Your task to perform on an android device: Go to internet settings Image 0: 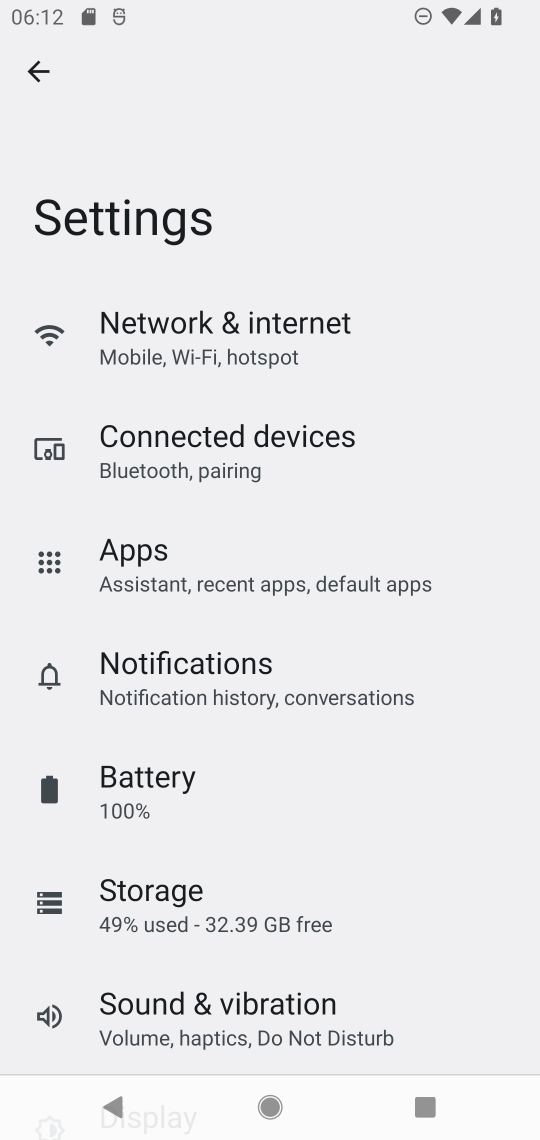
Step 0: press home button
Your task to perform on an android device: Go to internet settings Image 1: 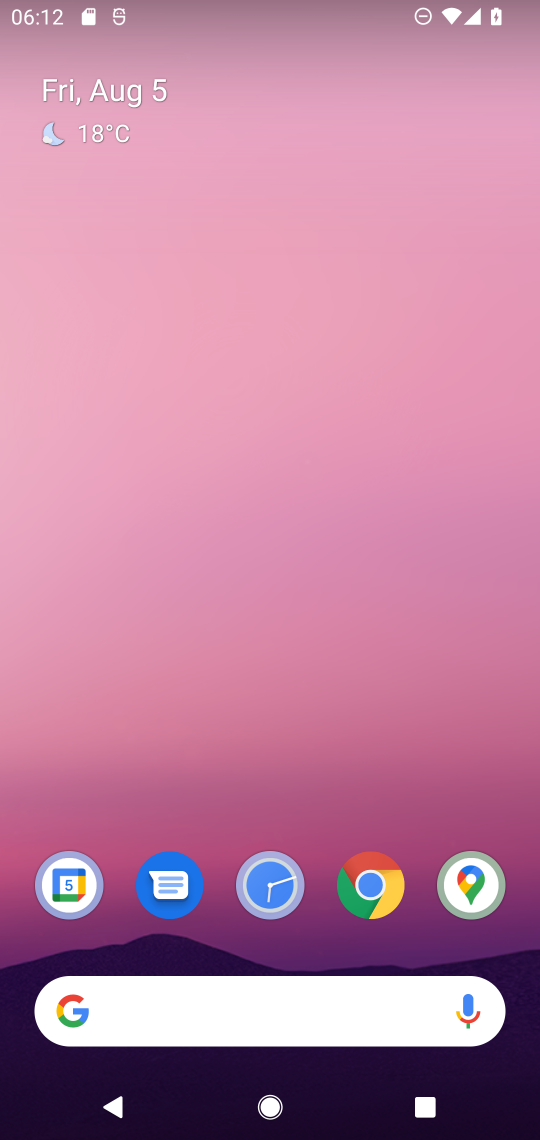
Step 1: drag from (308, 949) to (279, 269)
Your task to perform on an android device: Go to internet settings Image 2: 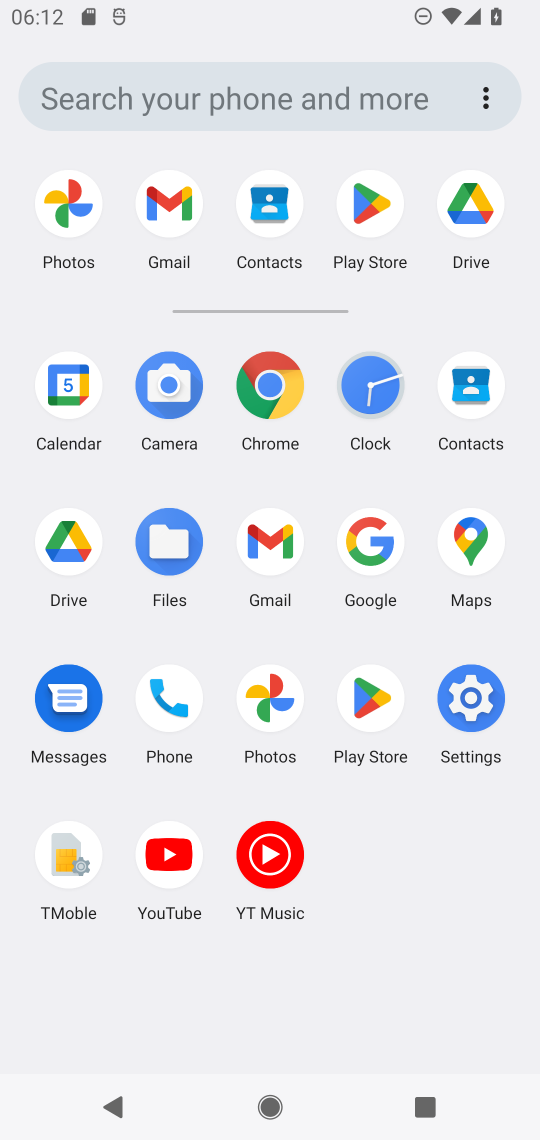
Step 2: click (465, 701)
Your task to perform on an android device: Go to internet settings Image 3: 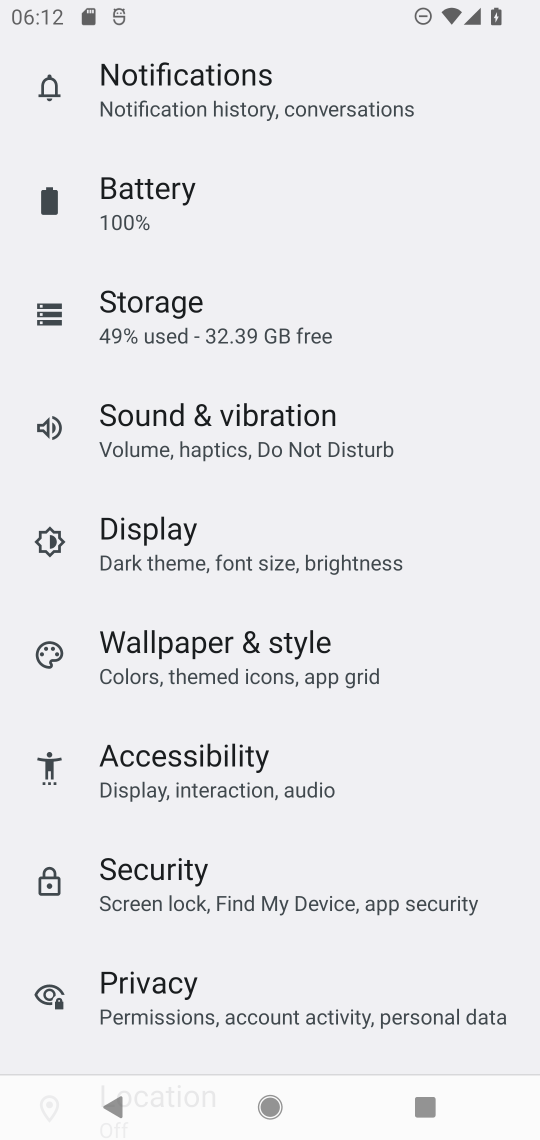
Step 3: drag from (182, 233) to (226, 797)
Your task to perform on an android device: Go to internet settings Image 4: 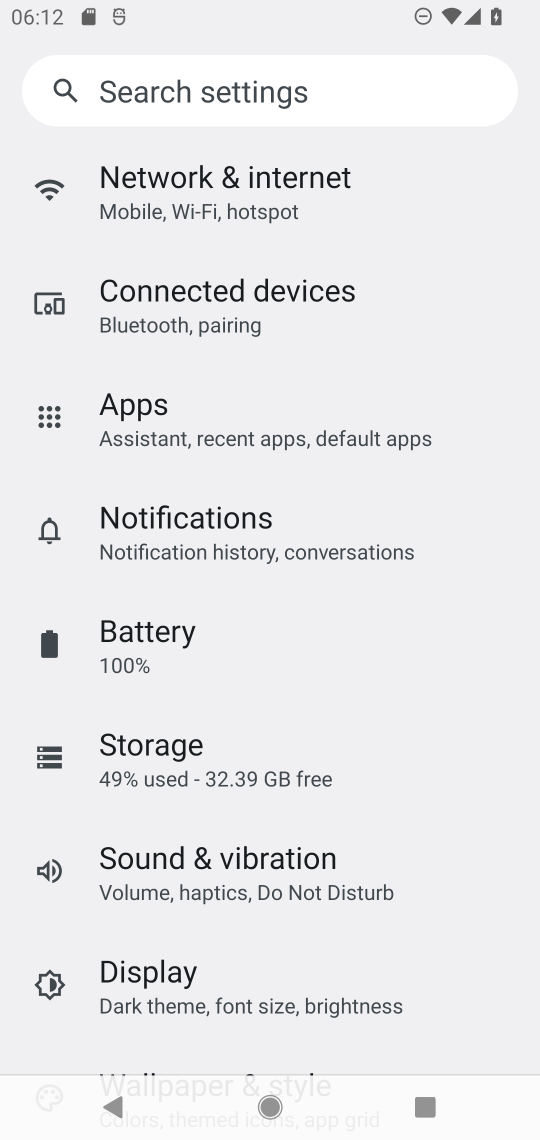
Step 4: drag from (234, 387) to (263, 621)
Your task to perform on an android device: Go to internet settings Image 5: 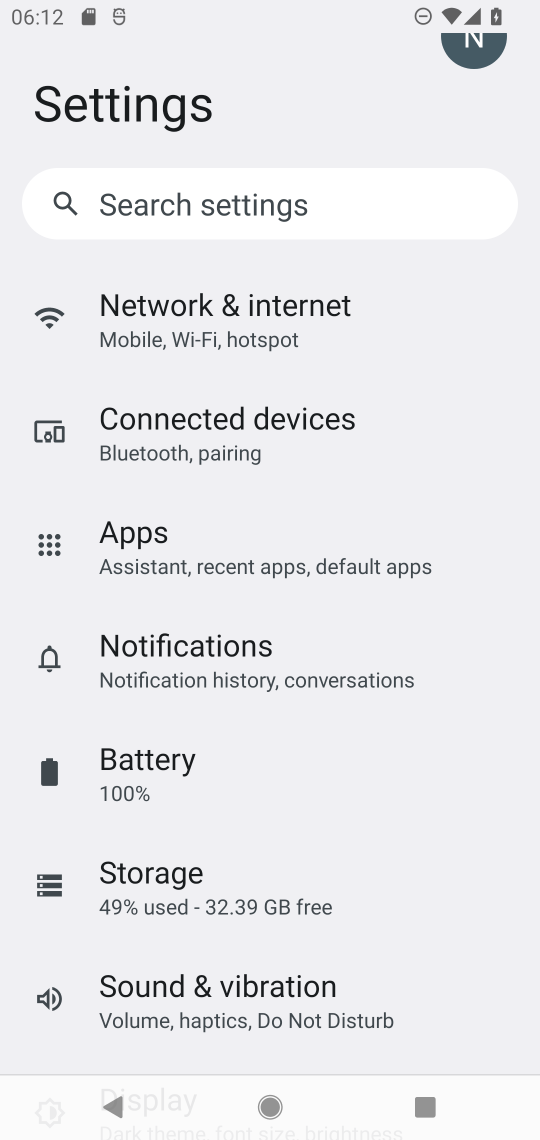
Step 5: click (172, 312)
Your task to perform on an android device: Go to internet settings Image 6: 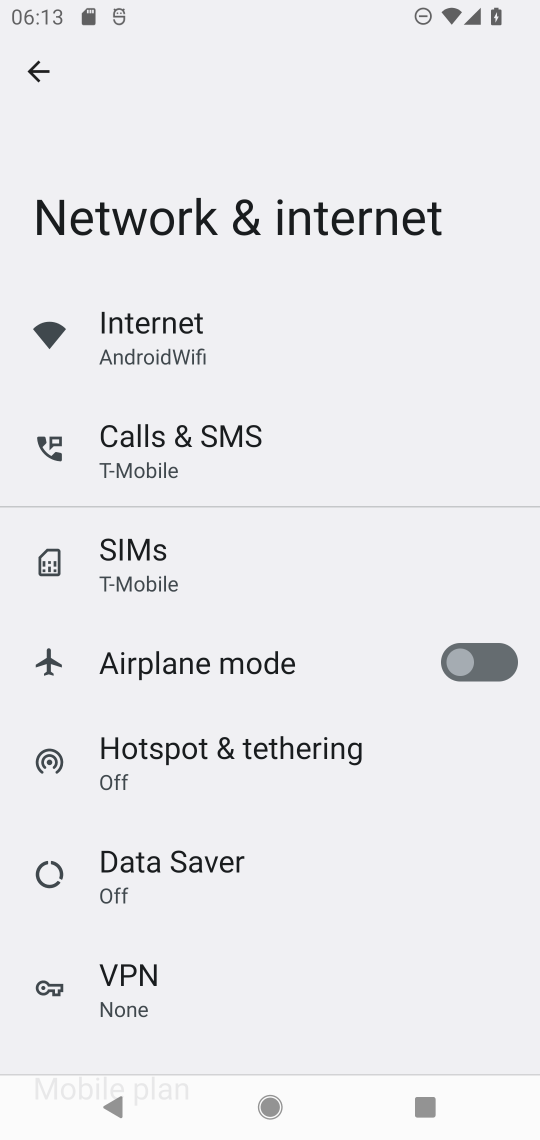
Step 6: click (153, 345)
Your task to perform on an android device: Go to internet settings Image 7: 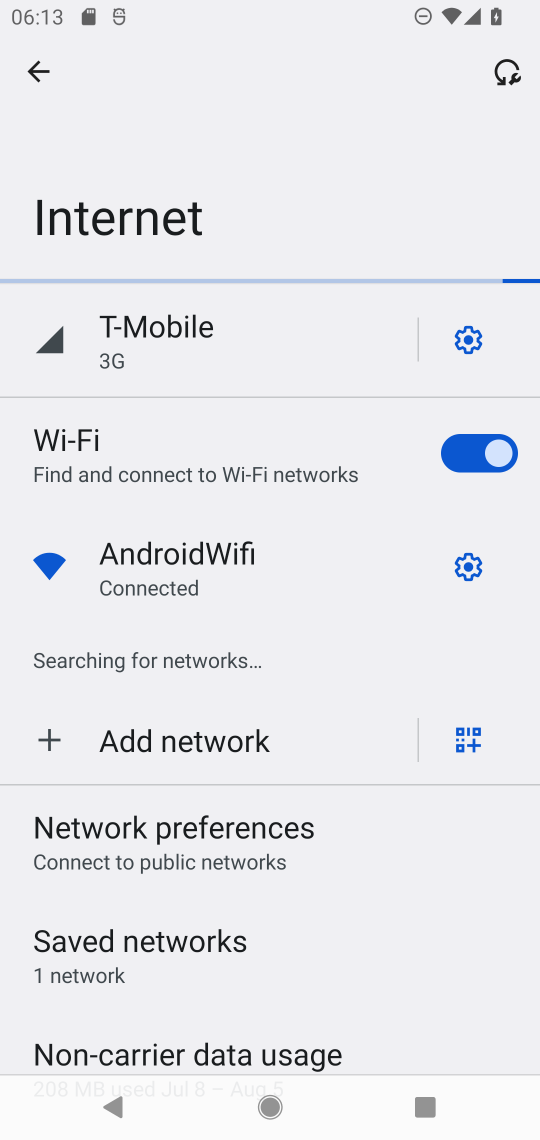
Step 7: task complete